Your task to perform on an android device: turn on showing notifications on the lock screen Image 0: 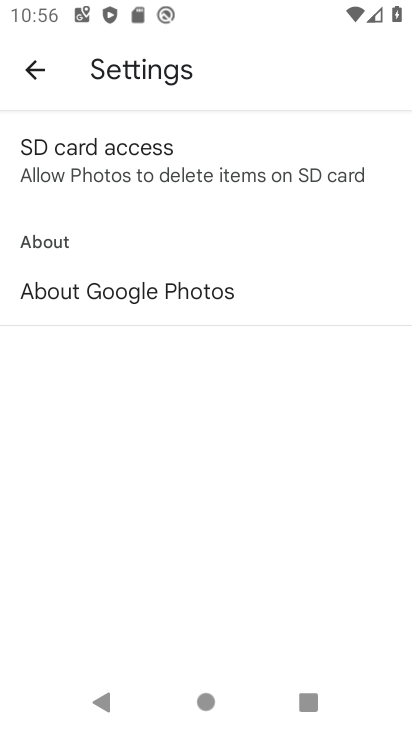
Step 0: press home button
Your task to perform on an android device: turn on showing notifications on the lock screen Image 1: 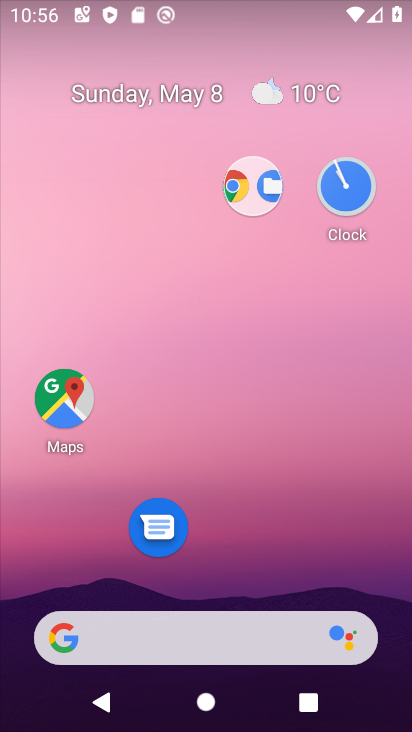
Step 1: drag from (269, 586) to (352, 2)
Your task to perform on an android device: turn on showing notifications on the lock screen Image 2: 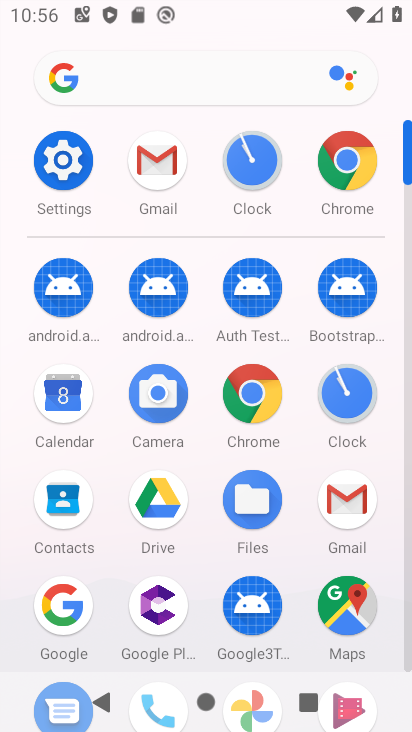
Step 2: click (53, 173)
Your task to perform on an android device: turn on showing notifications on the lock screen Image 3: 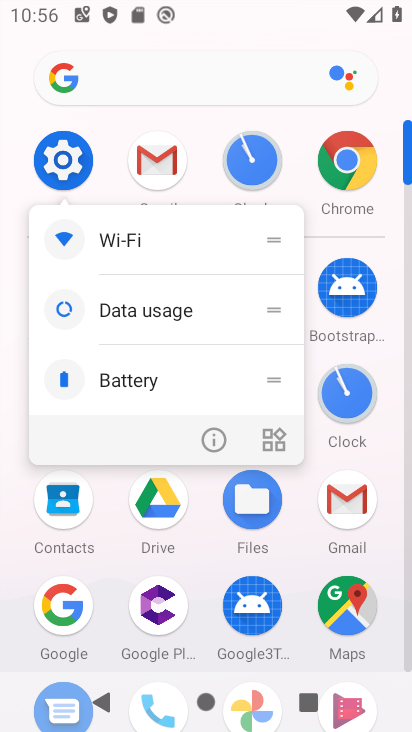
Step 3: click (75, 129)
Your task to perform on an android device: turn on showing notifications on the lock screen Image 4: 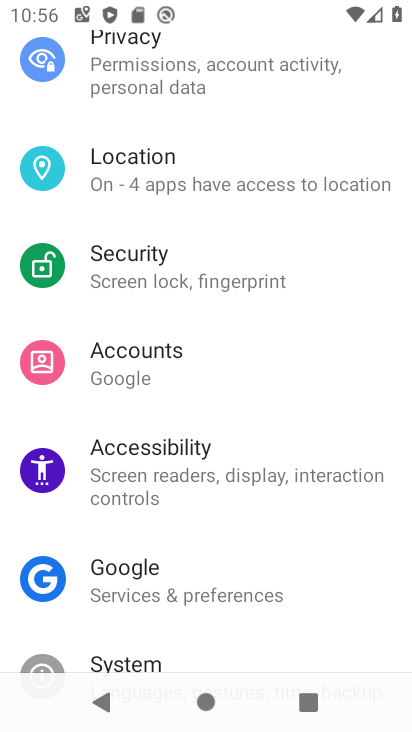
Step 4: click (76, 152)
Your task to perform on an android device: turn on showing notifications on the lock screen Image 5: 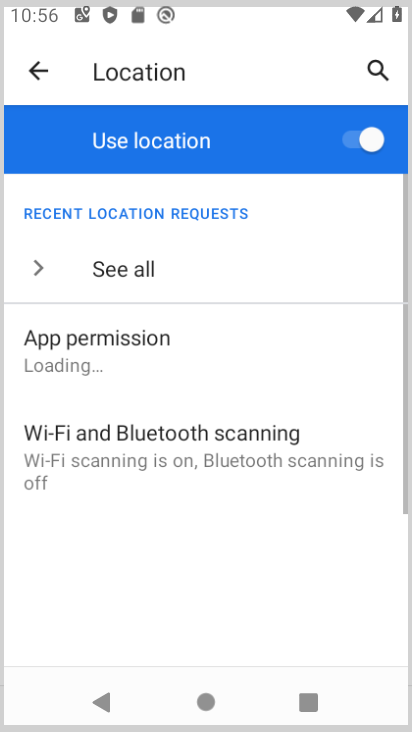
Step 5: drag from (217, 496) to (188, 87)
Your task to perform on an android device: turn on showing notifications on the lock screen Image 6: 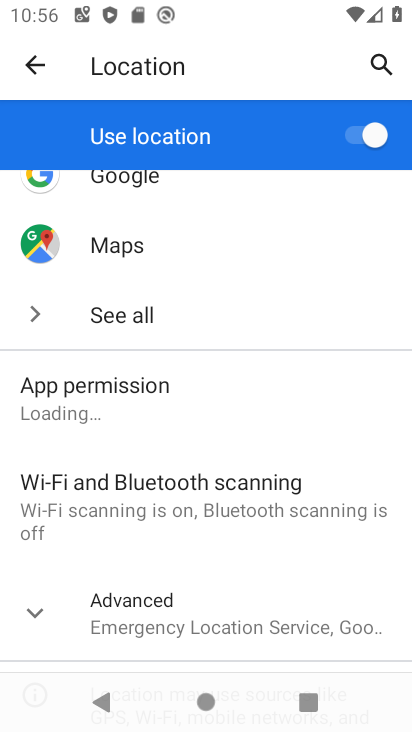
Step 6: click (41, 61)
Your task to perform on an android device: turn on showing notifications on the lock screen Image 7: 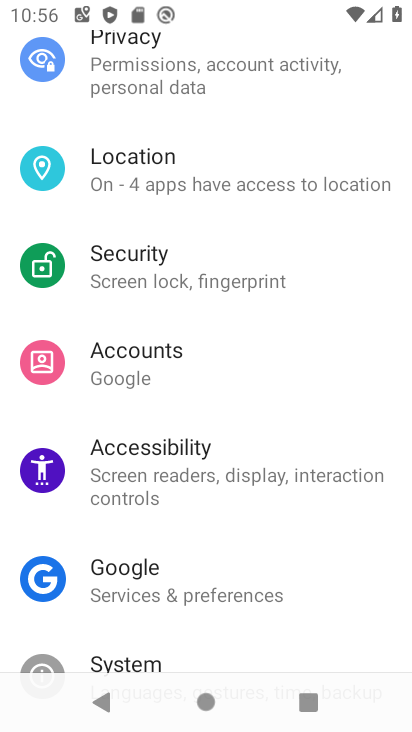
Step 7: drag from (201, 123) to (220, 707)
Your task to perform on an android device: turn on showing notifications on the lock screen Image 8: 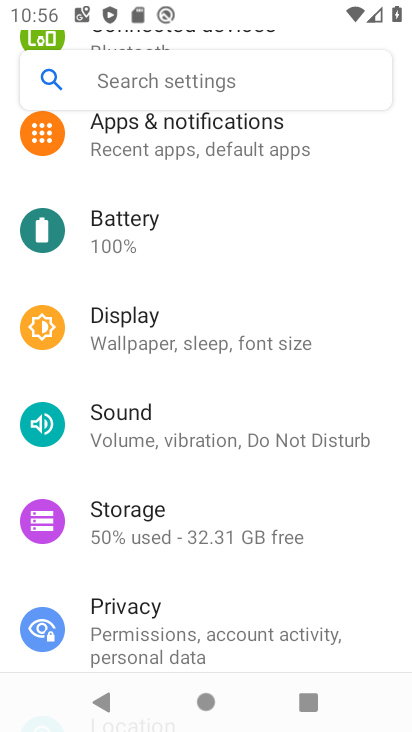
Step 8: click (151, 147)
Your task to perform on an android device: turn on showing notifications on the lock screen Image 9: 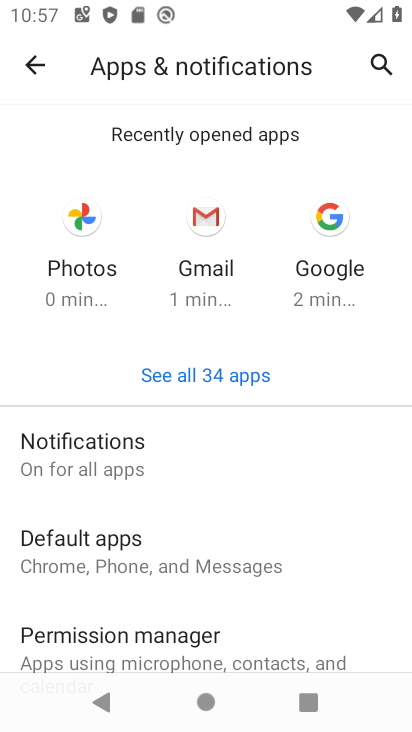
Step 9: click (127, 453)
Your task to perform on an android device: turn on showing notifications on the lock screen Image 10: 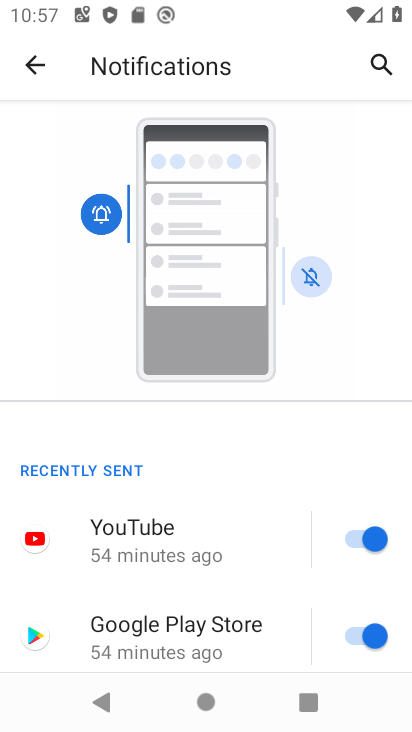
Step 10: drag from (236, 549) to (239, 120)
Your task to perform on an android device: turn on showing notifications on the lock screen Image 11: 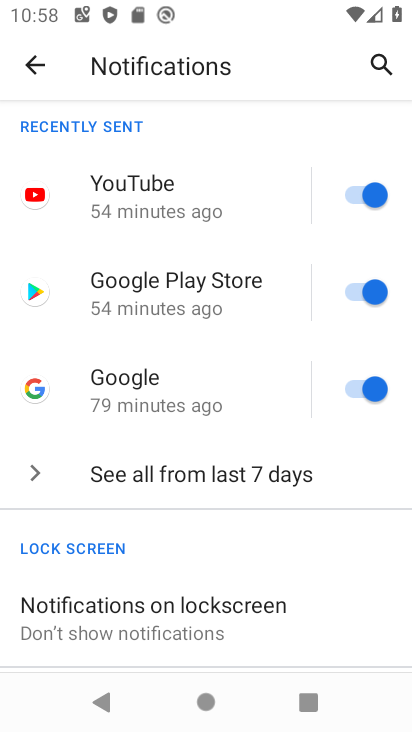
Step 11: click (214, 624)
Your task to perform on an android device: turn on showing notifications on the lock screen Image 12: 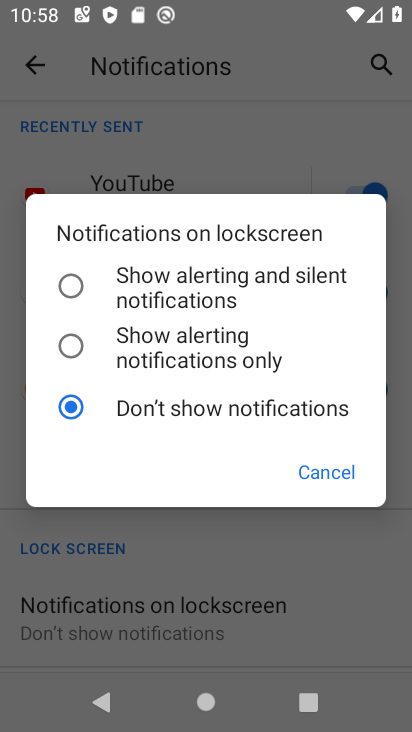
Step 12: click (175, 286)
Your task to perform on an android device: turn on showing notifications on the lock screen Image 13: 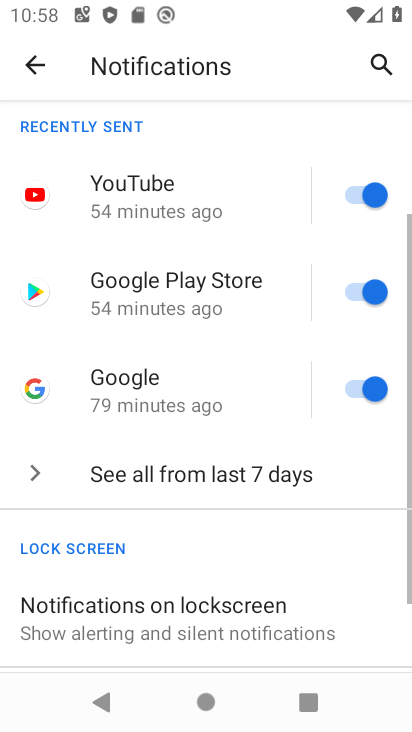
Step 13: task complete